Your task to perform on an android device: toggle airplane mode Image 0: 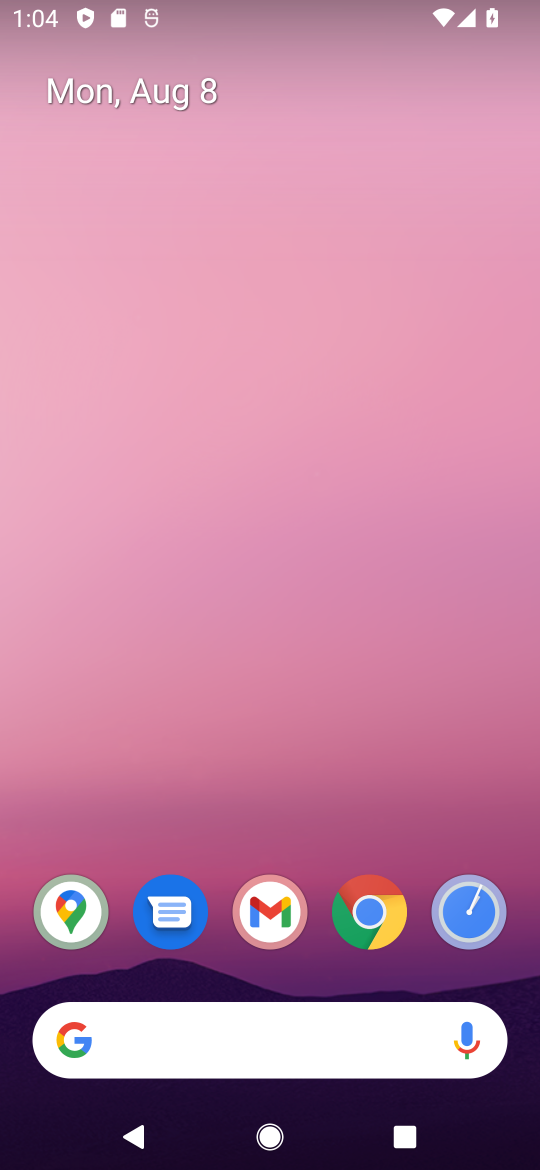
Step 0: drag from (387, 171) to (296, 924)
Your task to perform on an android device: toggle airplane mode Image 1: 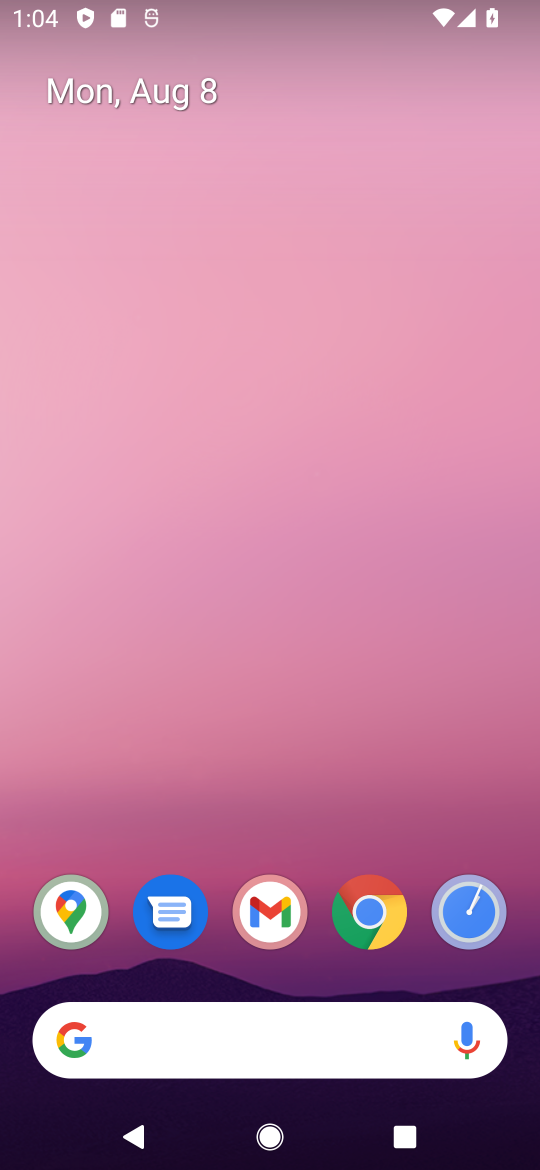
Step 1: drag from (467, 13) to (384, 779)
Your task to perform on an android device: toggle airplane mode Image 2: 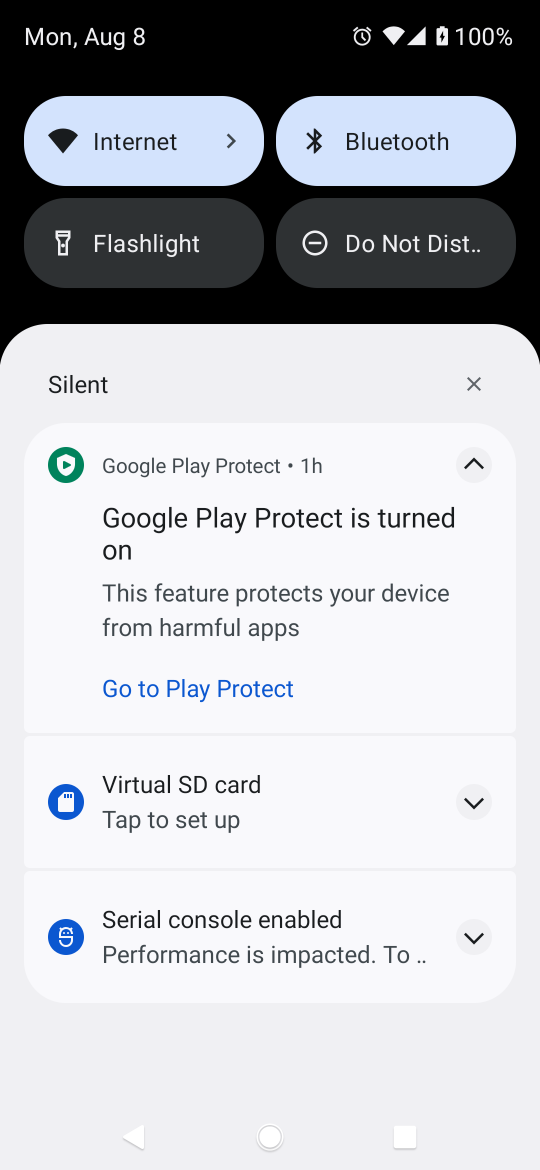
Step 2: drag from (315, 292) to (240, 1167)
Your task to perform on an android device: toggle airplane mode Image 3: 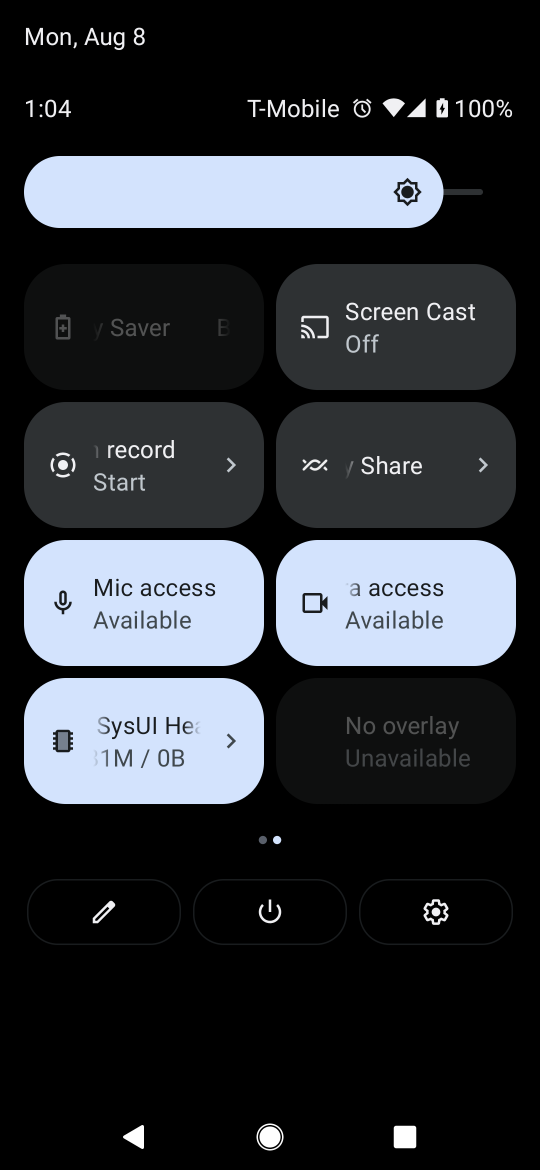
Step 3: drag from (28, 504) to (486, 494)
Your task to perform on an android device: toggle airplane mode Image 4: 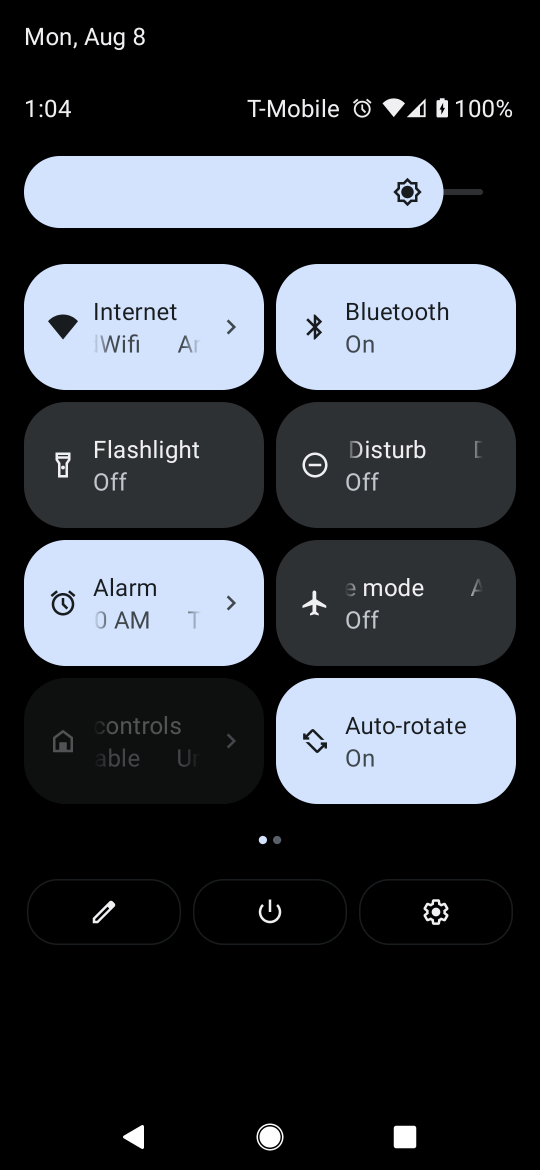
Step 4: click (435, 631)
Your task to perform on an android device: toggle airplane mode Image 5: 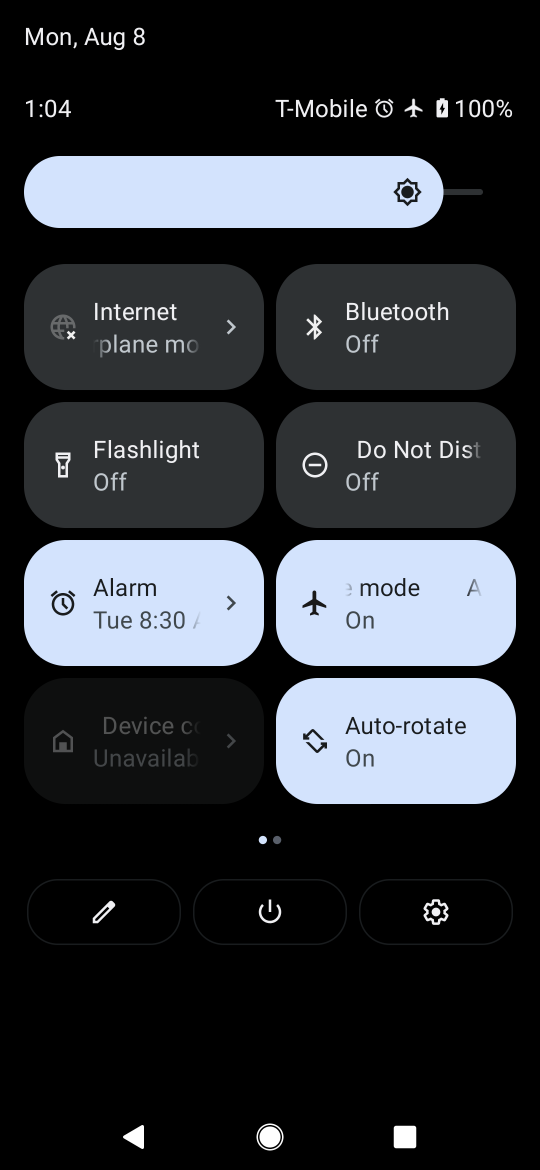
Step 5: task complete